Your task to perform on an android device: Go to privacy settings Image 0: 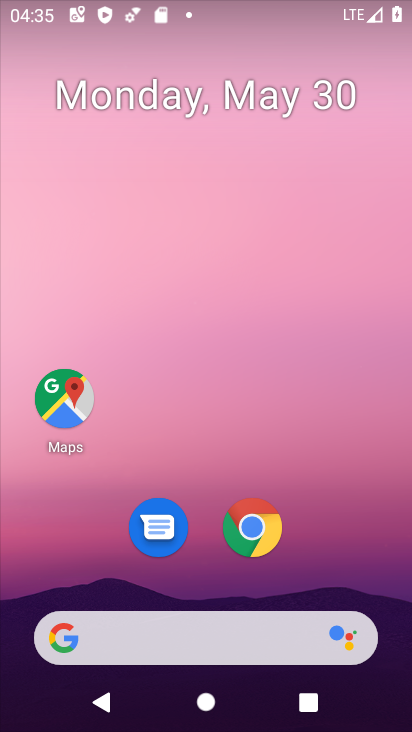
Step 0: drag from (231, 693) to (231, 0)
Your task to perform on an android device: Go to privacy settings Image 1: 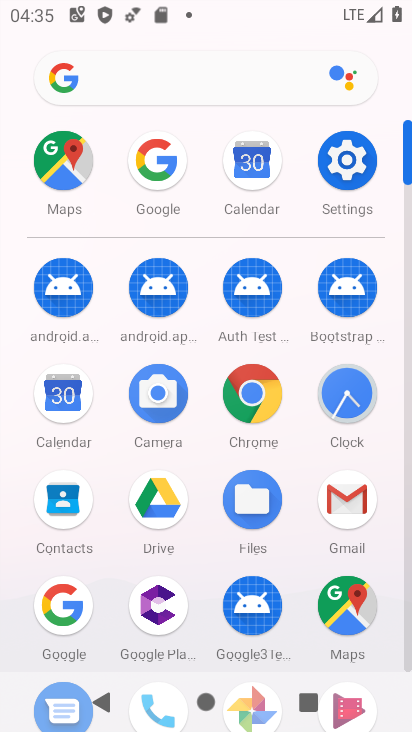
Step 1: click (353, 228)
Your task to perform on an android device: Go to privacy settings Image 2: 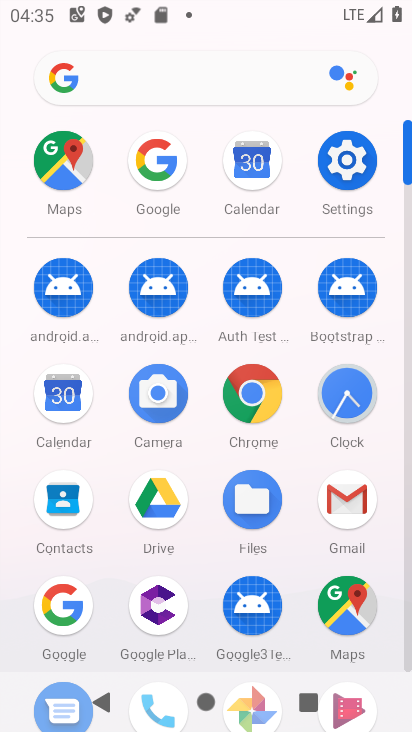
Step 2: click (344, 161)
Your task to perform on an android device: Go to privacy settings Image 3: 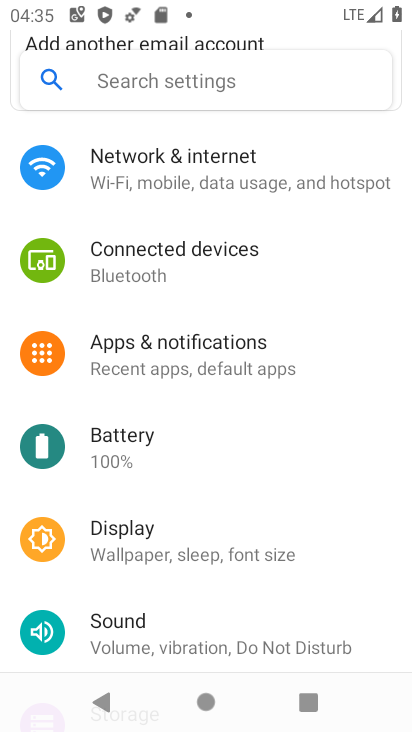
Step 3: drag from (157, 617) to (160, 184)
Your task to perform on an android device: Go to privacy settings Image 4: 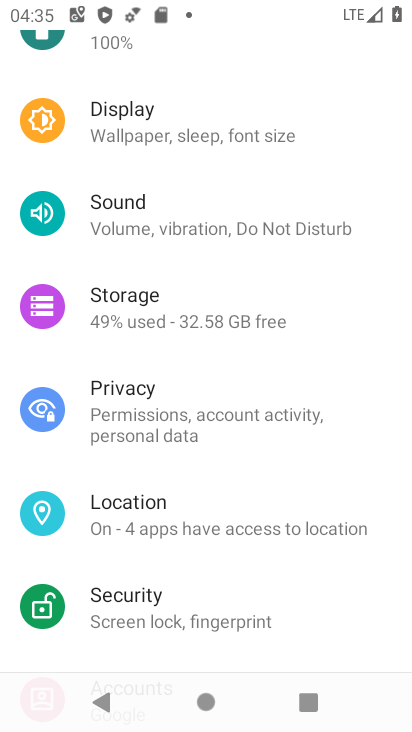
Step 4: drag from (128, 617) to (157, 224)
Your task to perform on an android device: Go to privacy settings Image 5: 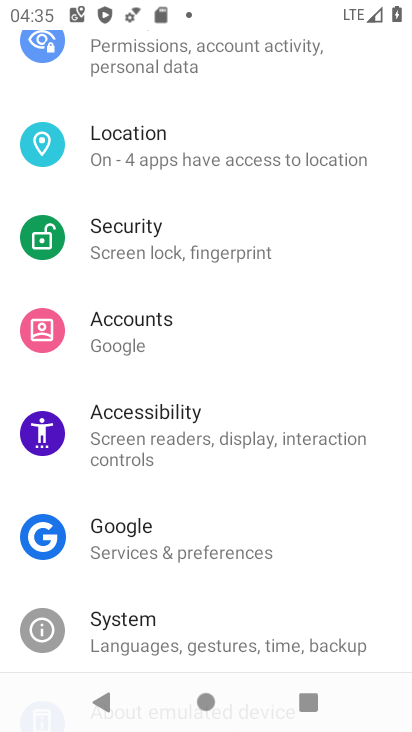
Step 5: drag from (192, 200) to (213, 619)
Your task to perform on an android device: Go to privacy settings Image 6: 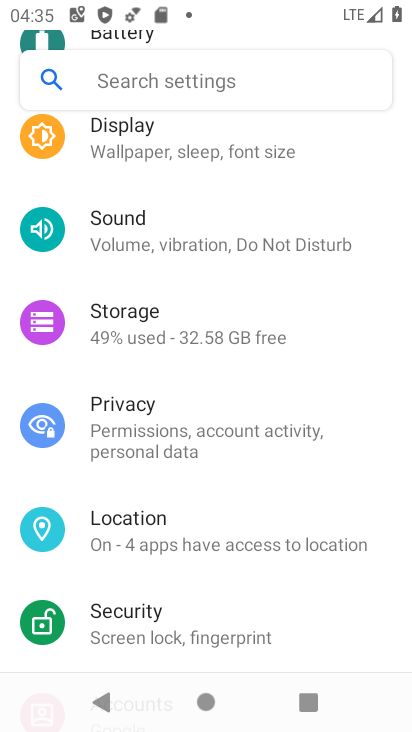
Step 6: click (144, 418)
Your task to perform on an android device: Go to privacy settings Image 7: 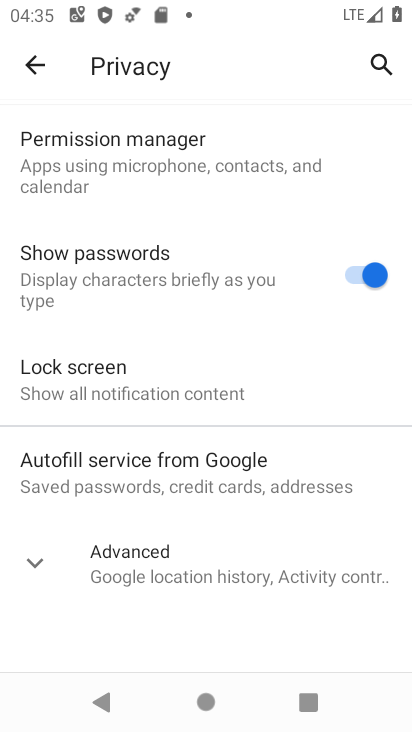
Step 7: task complete